Your task to perform on an android device: manage bookmarks in the chrome app Image 0: 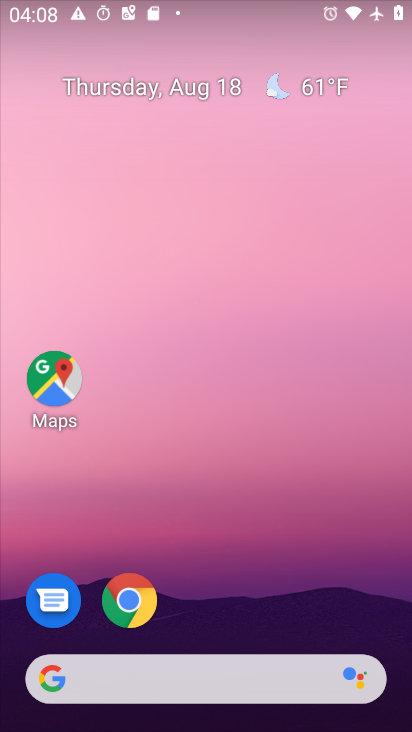
Step 0: press home button
Your task to perform on an android device: manage bookmarks in the chrome app Image 1: 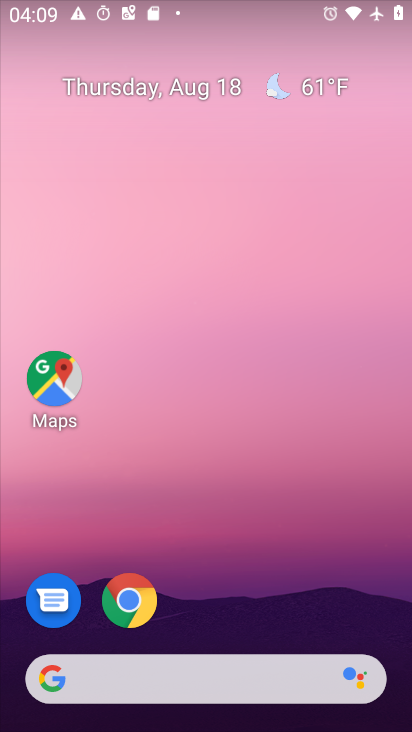
Step 1: click (126, 600)
Your task to perform on an android device: manage bookmarks in the chrome app Image 2: 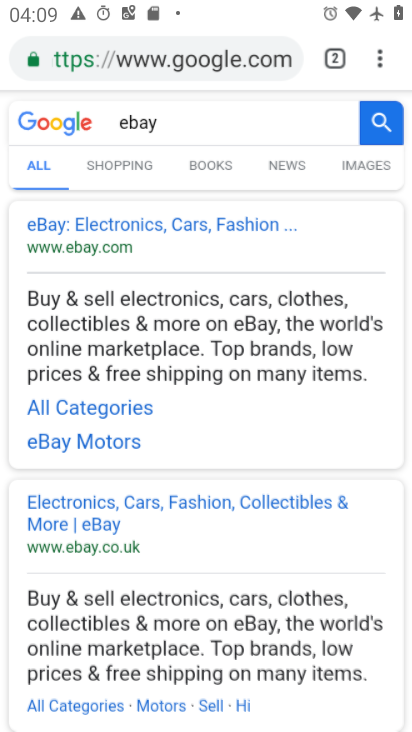
Step 2: drag from (382, 61) to (191, 226)
Your task to perform on an android device: manage bookmarks in the chrome app Image 3: 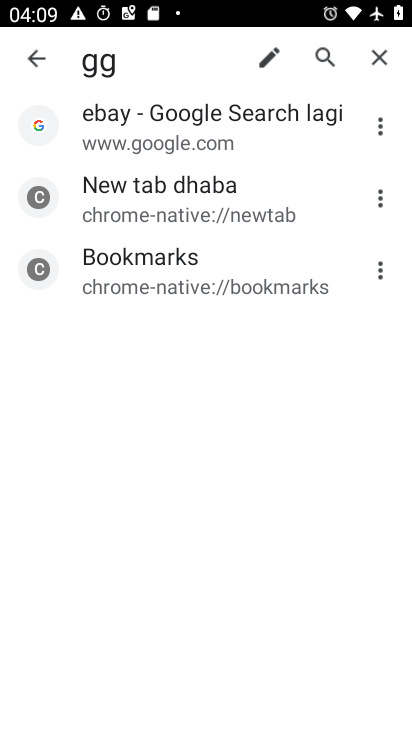
Step 3: click (380, 124)
Your task to perform on an android device: manage bookmarks in the chrome app Image 4: 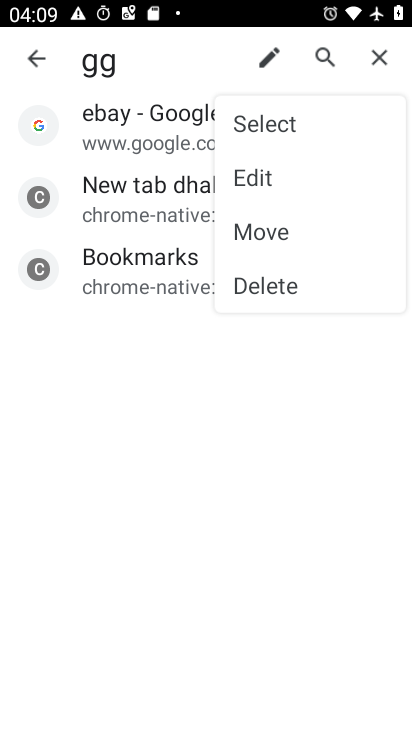
Step 4: click (265, 183)
Your task to perform on an android device: manage bookmarks in the chrome app Image 5: 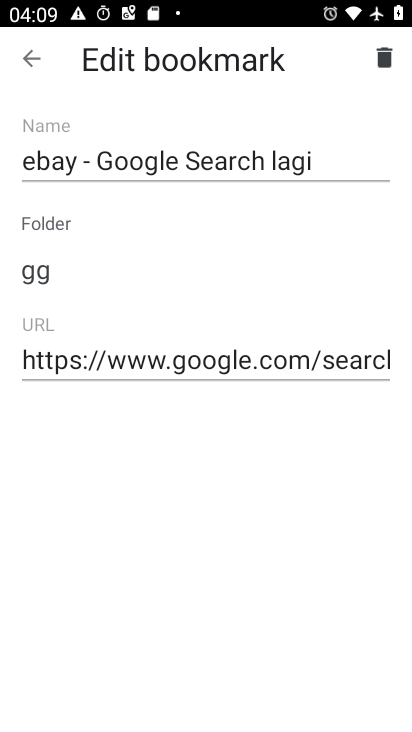
Step 5: task complete